Your task to perform on an android device: Go to location settings Image 0: 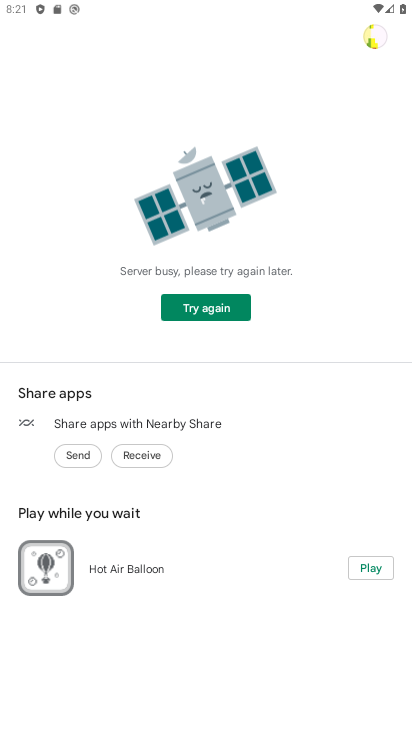
Step 0: press home button
Your task to perform on an android device: Go to location settings Image 1: 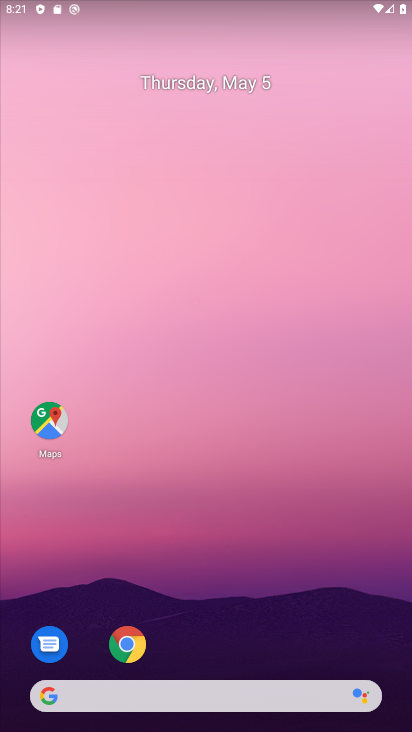
Step 1: drag from (306, 571) to (254, 31)
Your task to perform on an android device: Go to location settings Image 2: 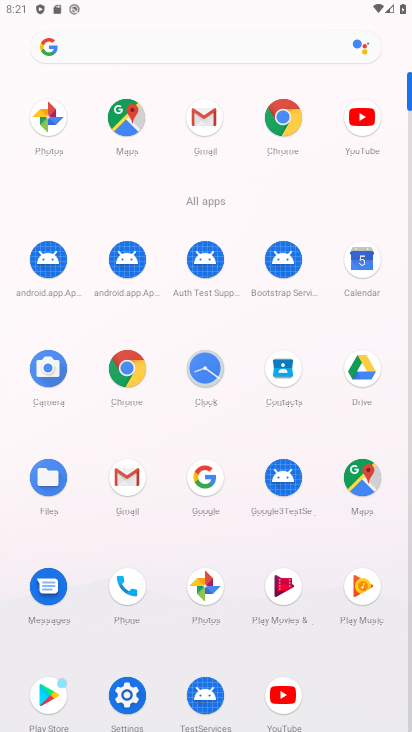
Step 2: click (125, 689)
Your task to perform on an android device: Go to location settings Image 3: 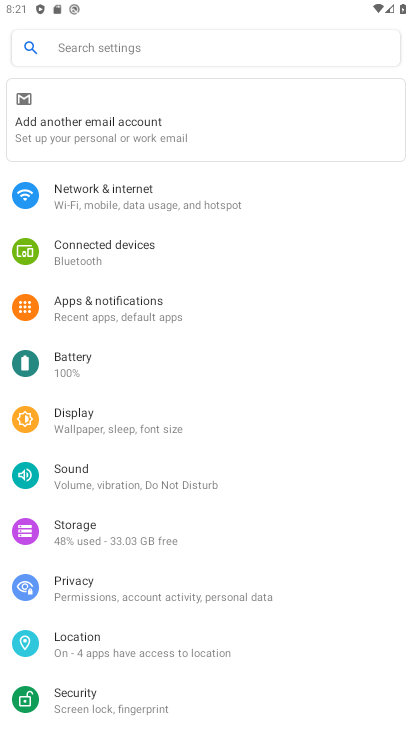
Step 3: click (124, 647)
Your task to perform on an android device: Go to location settings Image 4: 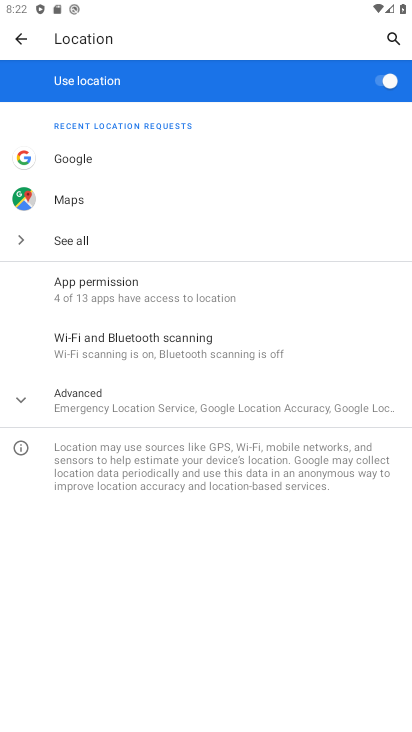
Step 4: task complete